Your task to perform on an android device: Go to Google maps Image 0: 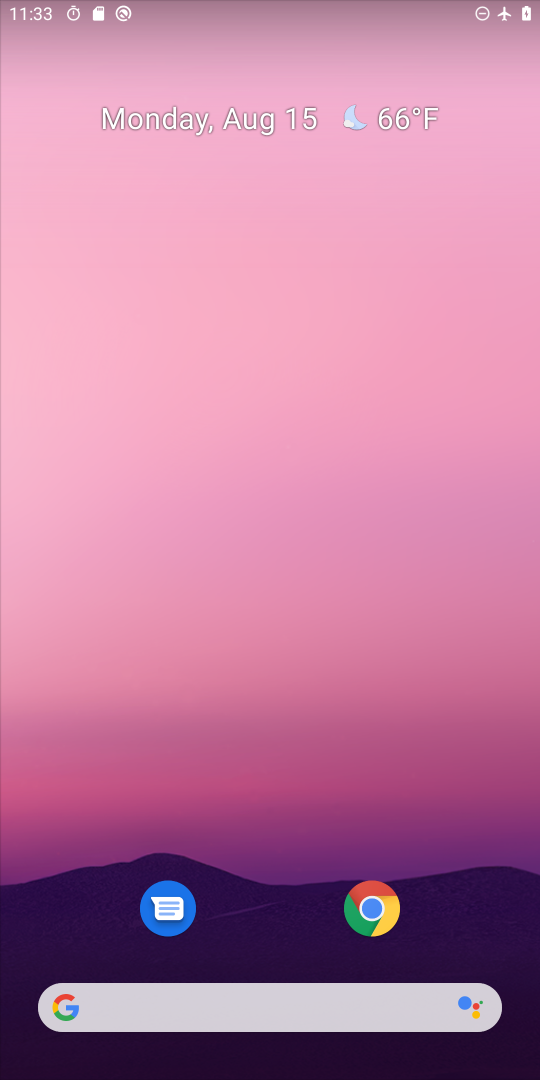
Step 0: drag from (317, 908) to (419, 4)
Your task to perform on an android device: Go to Google maps Image 1: 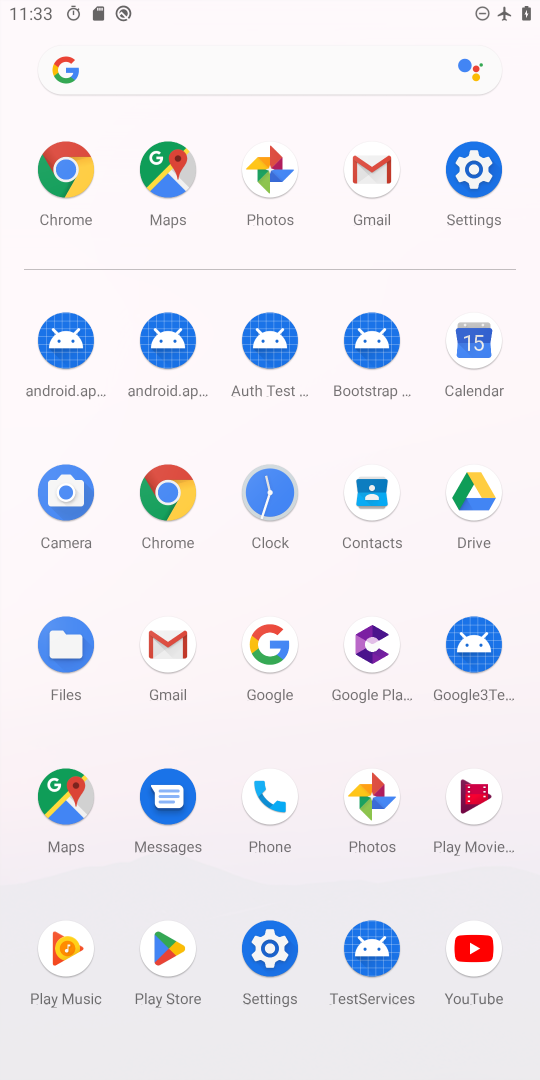
Step 1: click (170, 187)
Your task to perform on an android device: Go to Google maps Image 2: 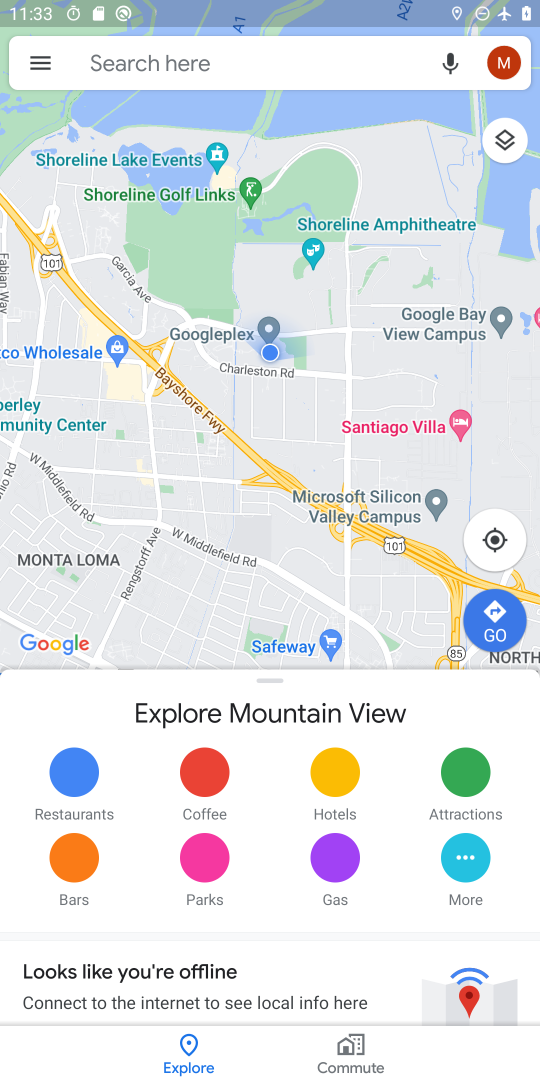
Step 2: task complete